Your task to perform on an android device: visit the assistant section in the google photos Image 0: 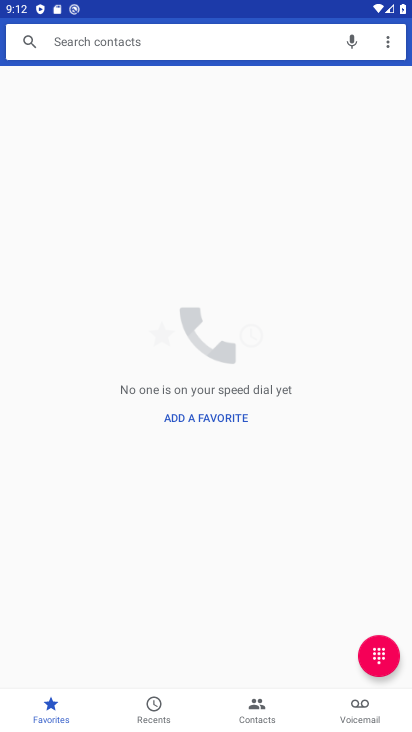
Step 0: press home button
Your task to perform on an android device: visit the assistant section in the google photos Image 1: 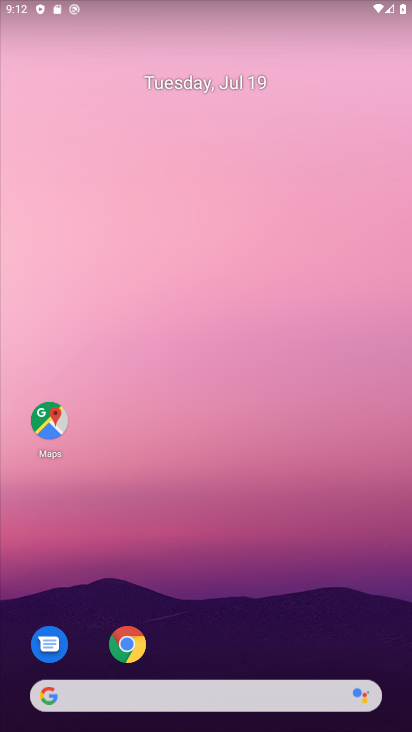
Step 1: drag from (254, 538) to (258, 360)
Your task to perform on an android device: visit the assistant section in the google photos Image 2: 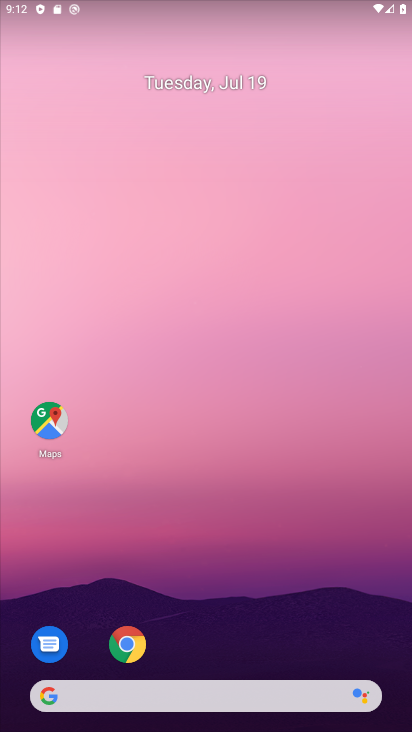
Step 2: drag from (237, 554) to (180, 228)
Your task to perform on an android device: visit the assistant section in the google photos Image 3: 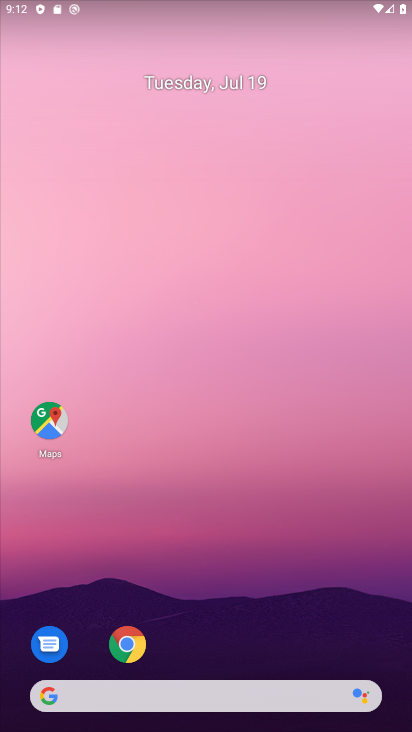
Step 3: drag from (252, 521) to (247, 231)
Your task to perform on an android device: visit the assistant section in the google photos Image 4: 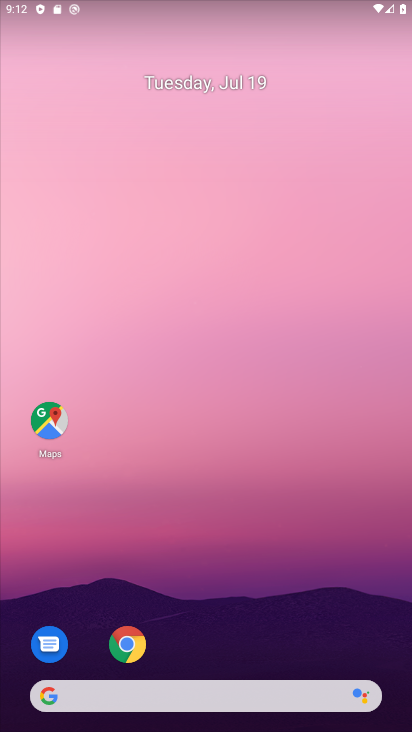
Step 4: drag from (260, 629) to (220, 219)
Your task to perform on an android device: visit the assistant section in the google photos Image 5: 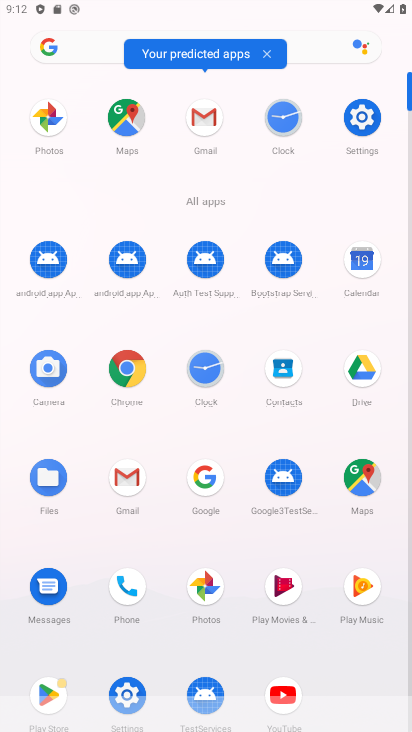
Step 5: click (207, 589)
Your task to perform on an android device: visit the assistant section in the google photos Image 6: 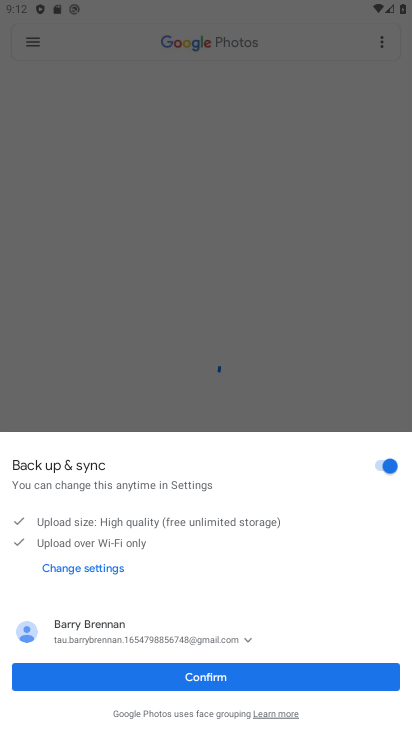
Step 6: task complete